Your task to perform on an android device: Open Google Chrome and click the shortcut for Amazon.com Image 0: 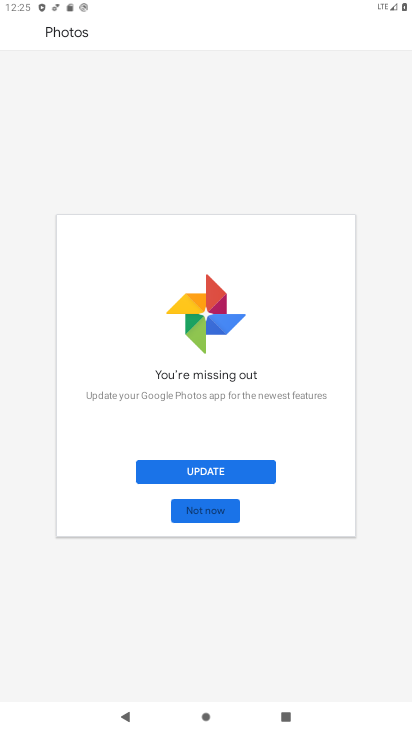
Step 0: press home button
Your task to perform on an android device: Open Google Chrome and click the shortcut for Amazon.com Image 1: 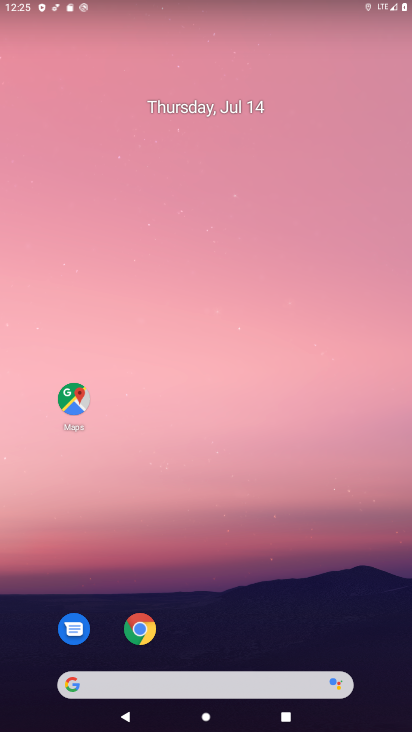
Step 1: drag from (223, 575) to (145, 8)
Your task to perform on an android device: Open Google Chrome and click the shortcut for Amazon.com Image 2: 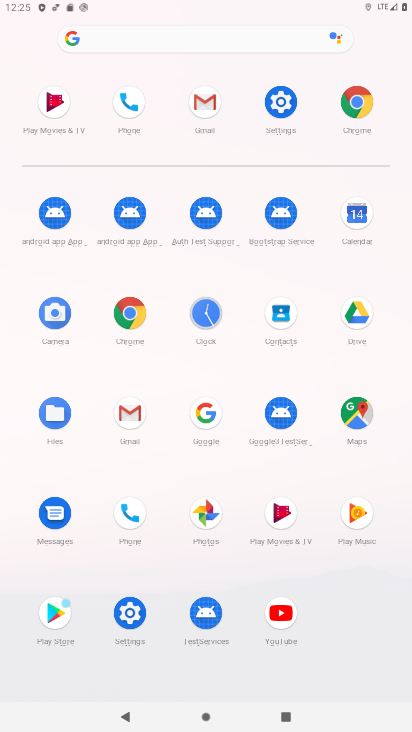
Step 2: click (354, 103)
Your task to perform on an android device: Open Google Chrome and click the shortcut for Amazon.com Image 3: 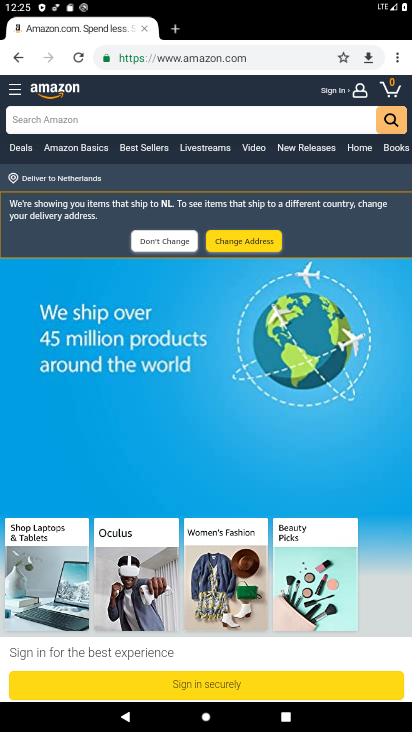
Step 3: drag from (396, 61) to (305, 316)
Your task to perform on an android device: Open Google Chrome and click the shortcut for Amazon.com Image 4: 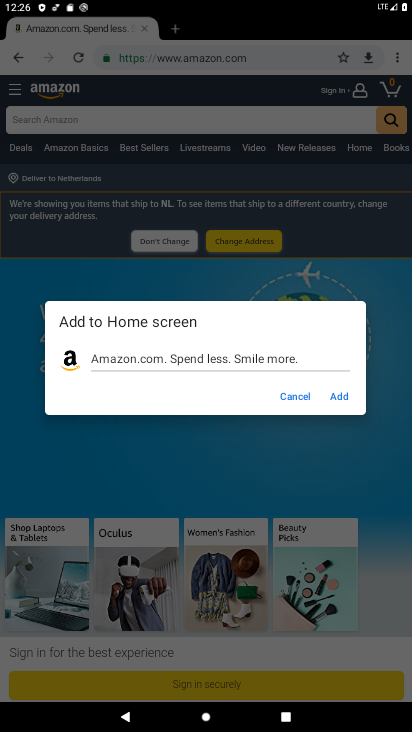
Step 4: click (337, 398)
Your task to perform on an android device: Open Google Chrome and click the shortcut for Amazon.com Image 5: 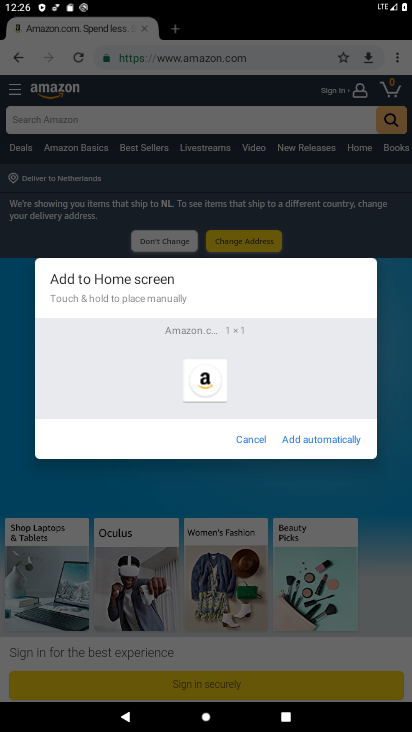
Step 5: click (324, 446)
Your task to perform on an android device: Open Google Chrome and click the shortcut for Amazon.com Image 6: 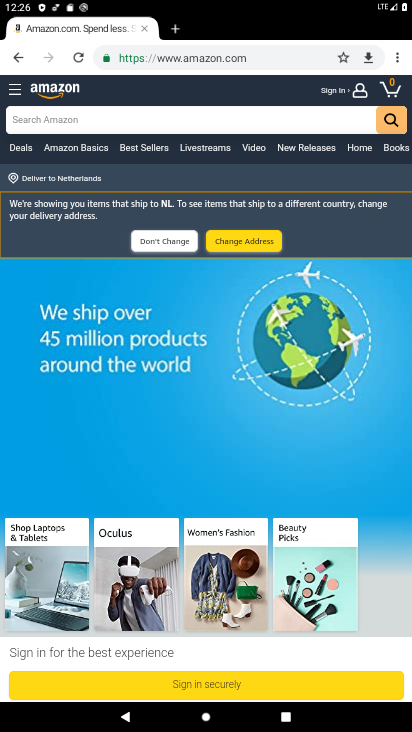
Step 6: task complete